Your task to perform on an android device: turn off notifications in google photos Image 0: 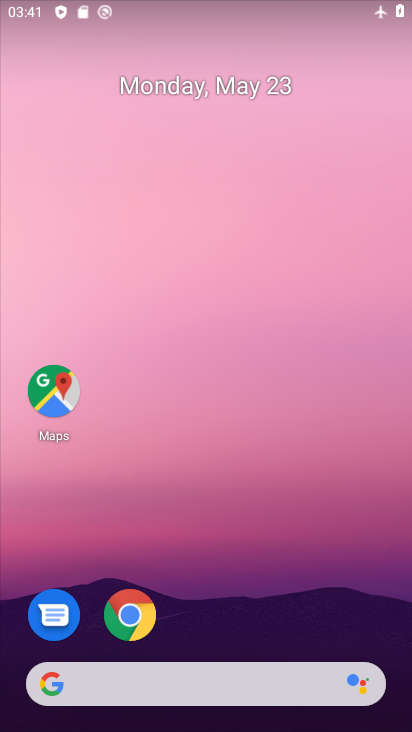
Step 0: drag from (196, 613) to (279, 246)
Your task to perform on an android device: turn off notifications in google photos Image 1: 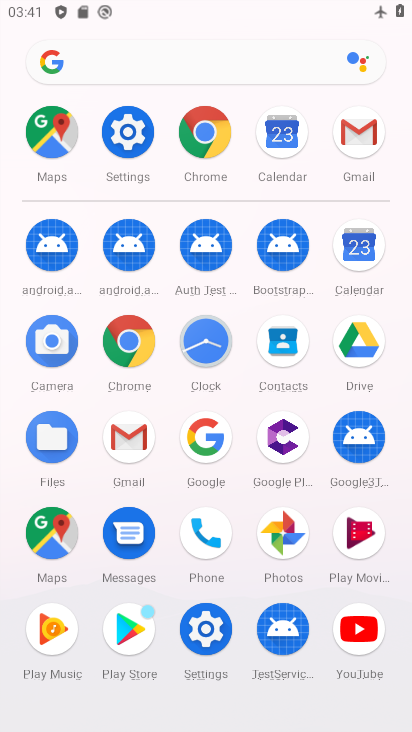
Step 1: click (283, 538)
Your task to perform on an android device: turn off notifications in google photos Image 2: 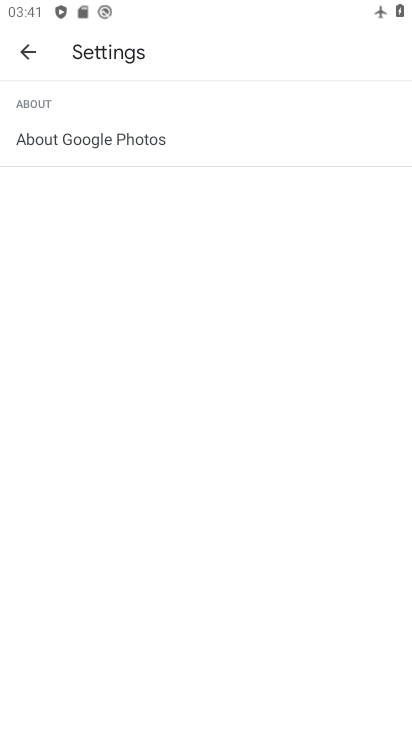
Step 2: click (36, 42)
Your task to perform on an android device: turn off notifications in google photos Image 3: 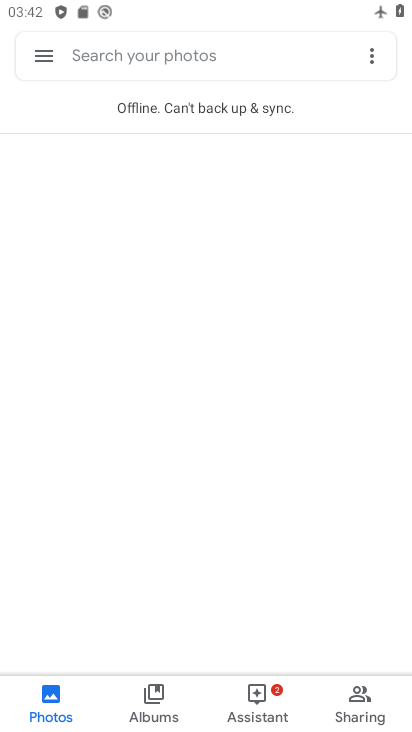
Step 3: click (50, 54)
Your task to perform on an android device: turn off notifications in google photos Image 4: 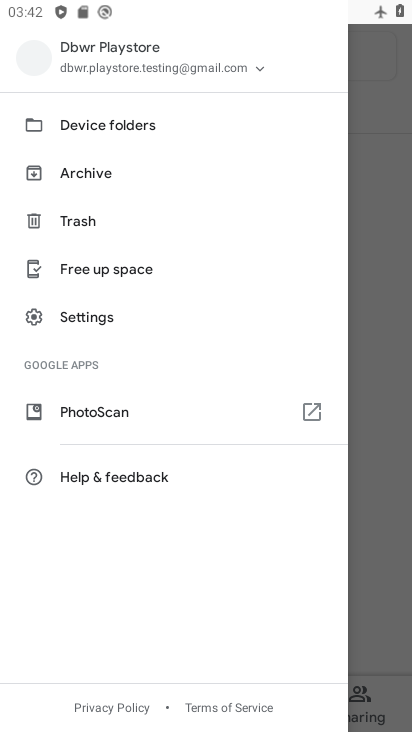
Step 4: click (93, 308)
Your task to perform on an android device: turn off notifications in google photos Image 5: 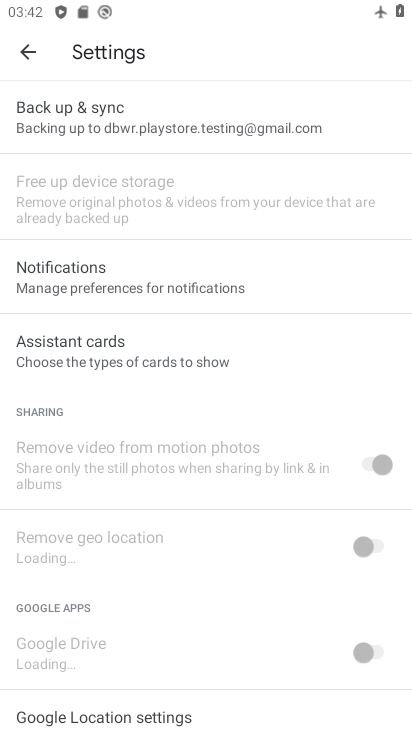
Step 5: drag from (198, 615) to (245, 296)
Your task to perform on an android device: turn off notifications in google photos Image 6: 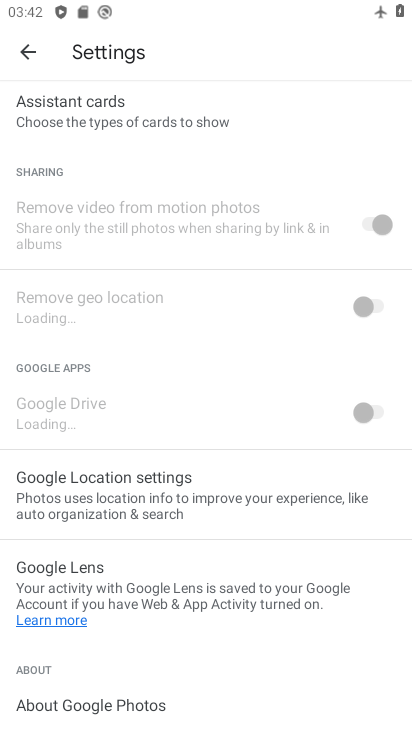
Step 6: drag from (227, 637) to (258, 245)
Your task to perform on an android device: turn off notifications in google photos Image 7: 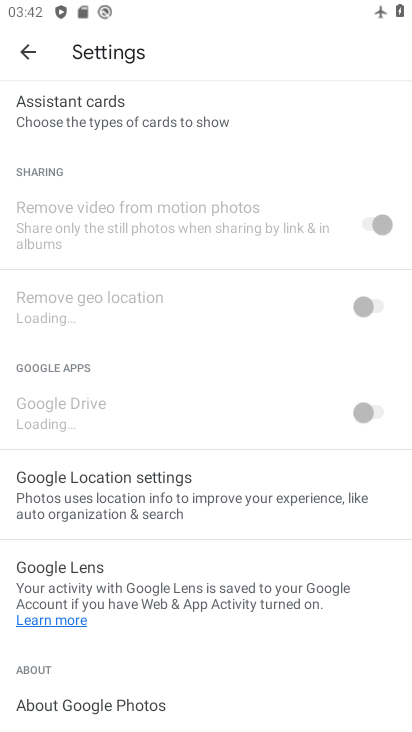
Step 7: drag from (181, 170) to (211, 629)
Your task to perform on an android device: turn off notifications in google photos Image 8: 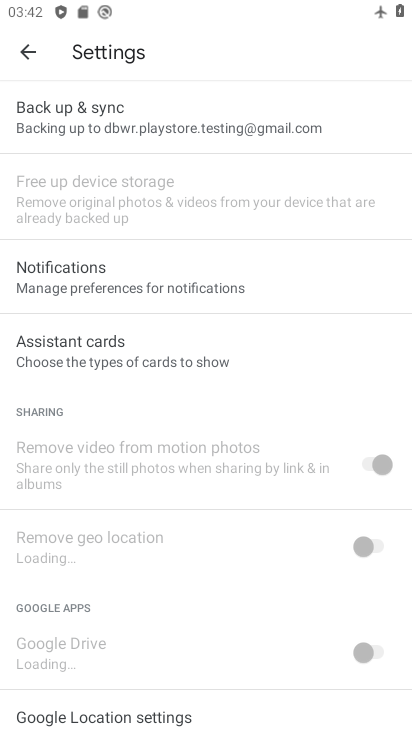
Step 8: drag from (81, 114) to (150, 379)
Your task to perform on an android device: turn off notifications in google photos Image 9: 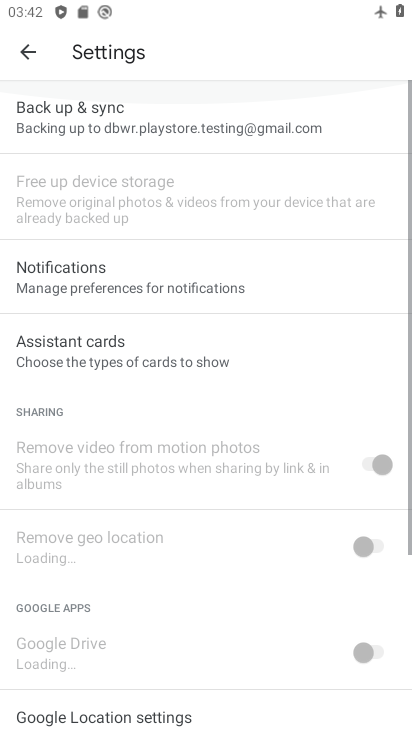
Step 9: click (242, 273)
Your task to perform on an android device: turn off notifications in google photos Image 10: 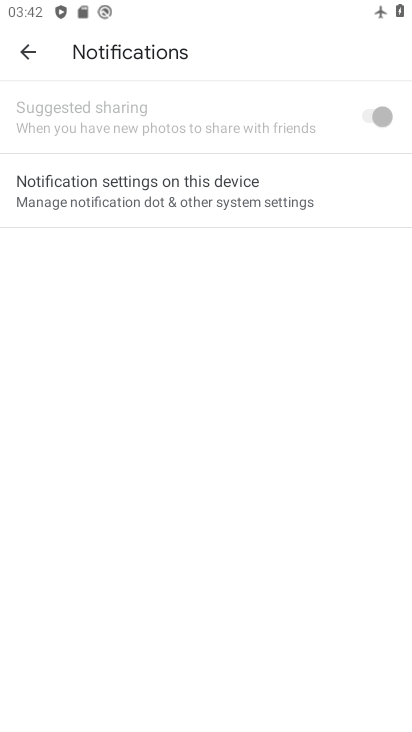
Step 10: click (268, 185)
Your task to perform on an android device: turn off notifications in google photos Image 11: 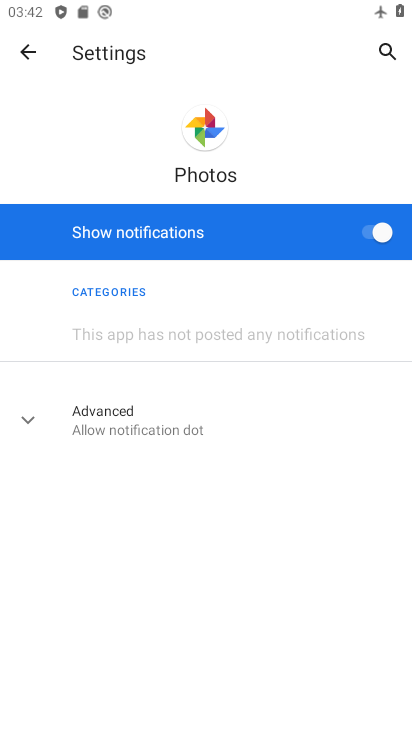
Step 11: click (376, 234)
Your task to perform on an android device: turn off notifications in google photos Image 12: 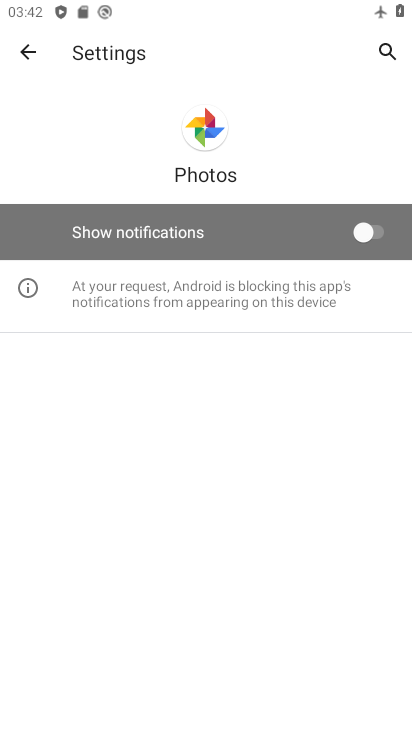
Step 12: task complete